Your task to perform on an android device: install app "VLC for Android" Image 0: 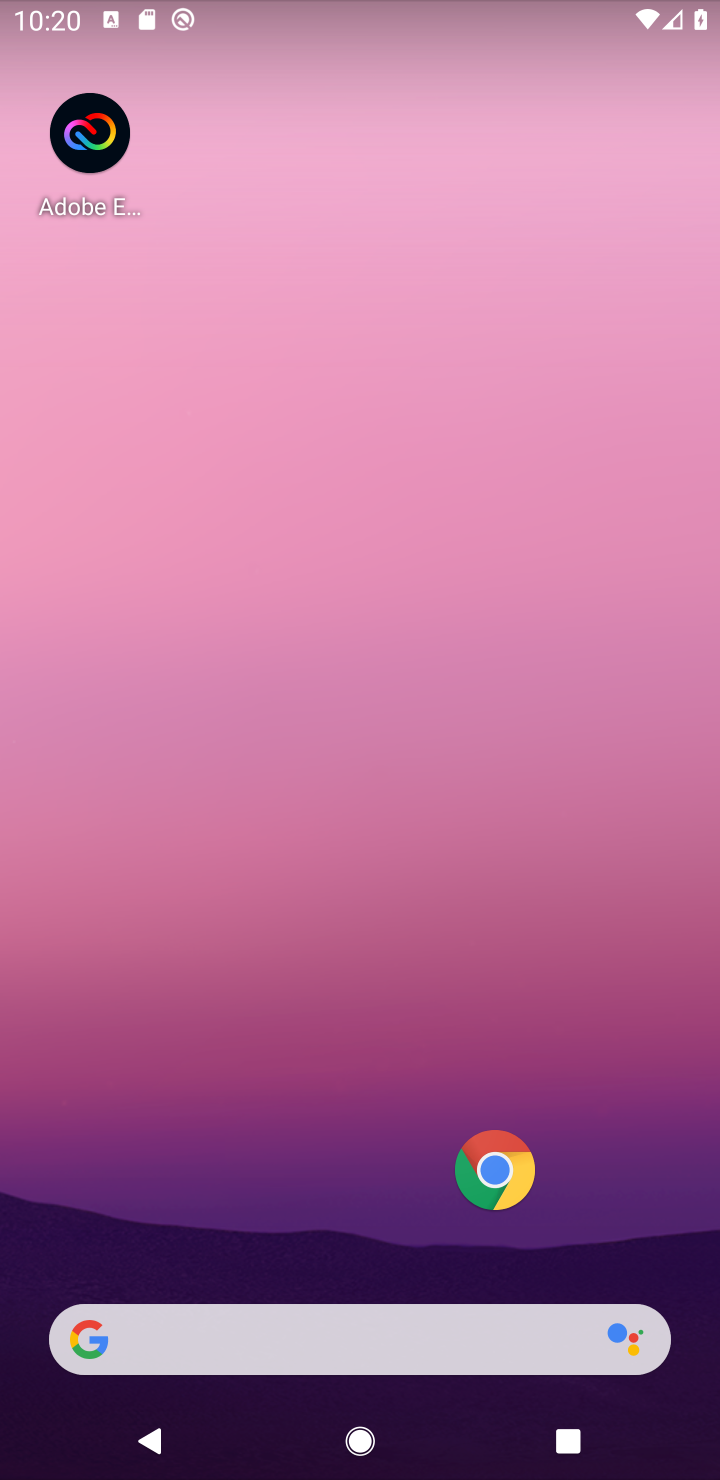
Step 0: drag from (186, 1227) to (426, 58)
Your task to perform on an android device: install app "VLC for Android" Image 1: 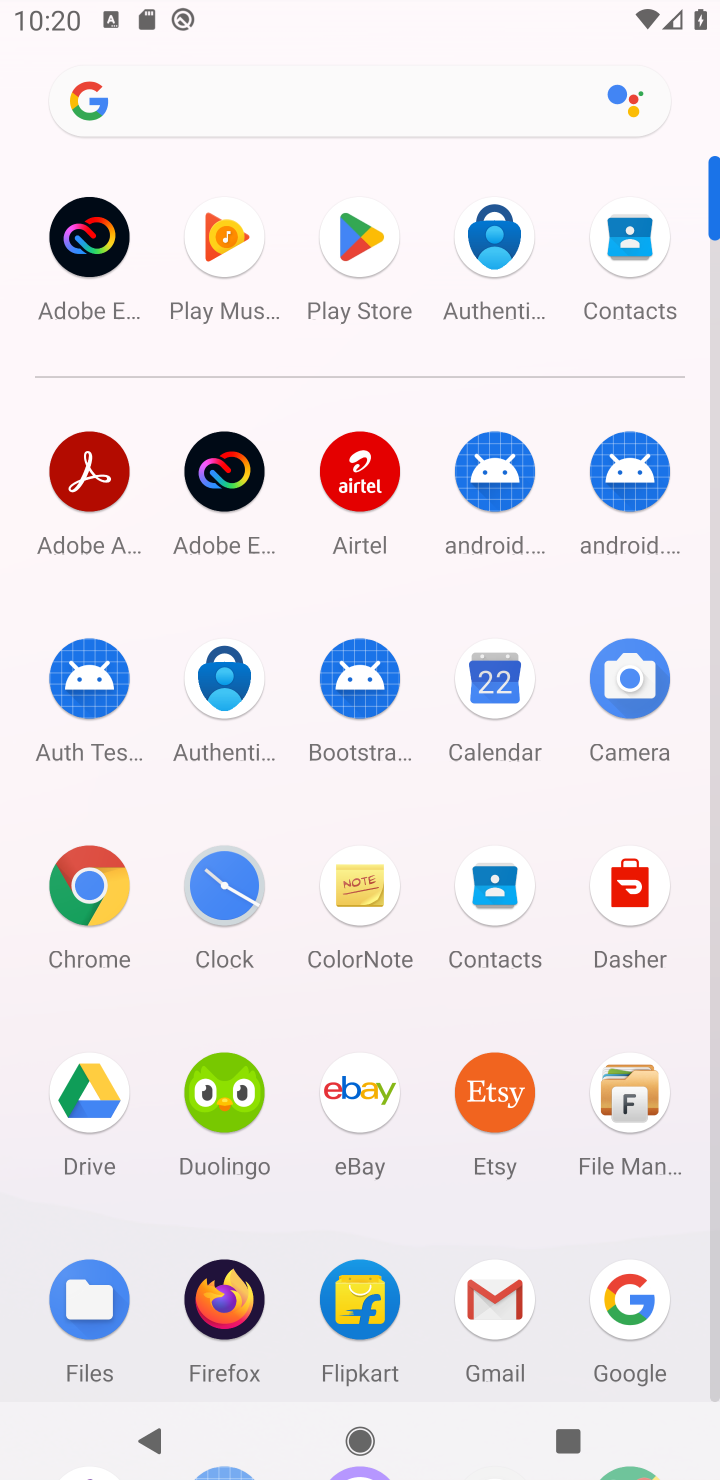
Step 1: click (356, 245)
Your task to perform on an android device: install app "VLC for Android" Image 2: 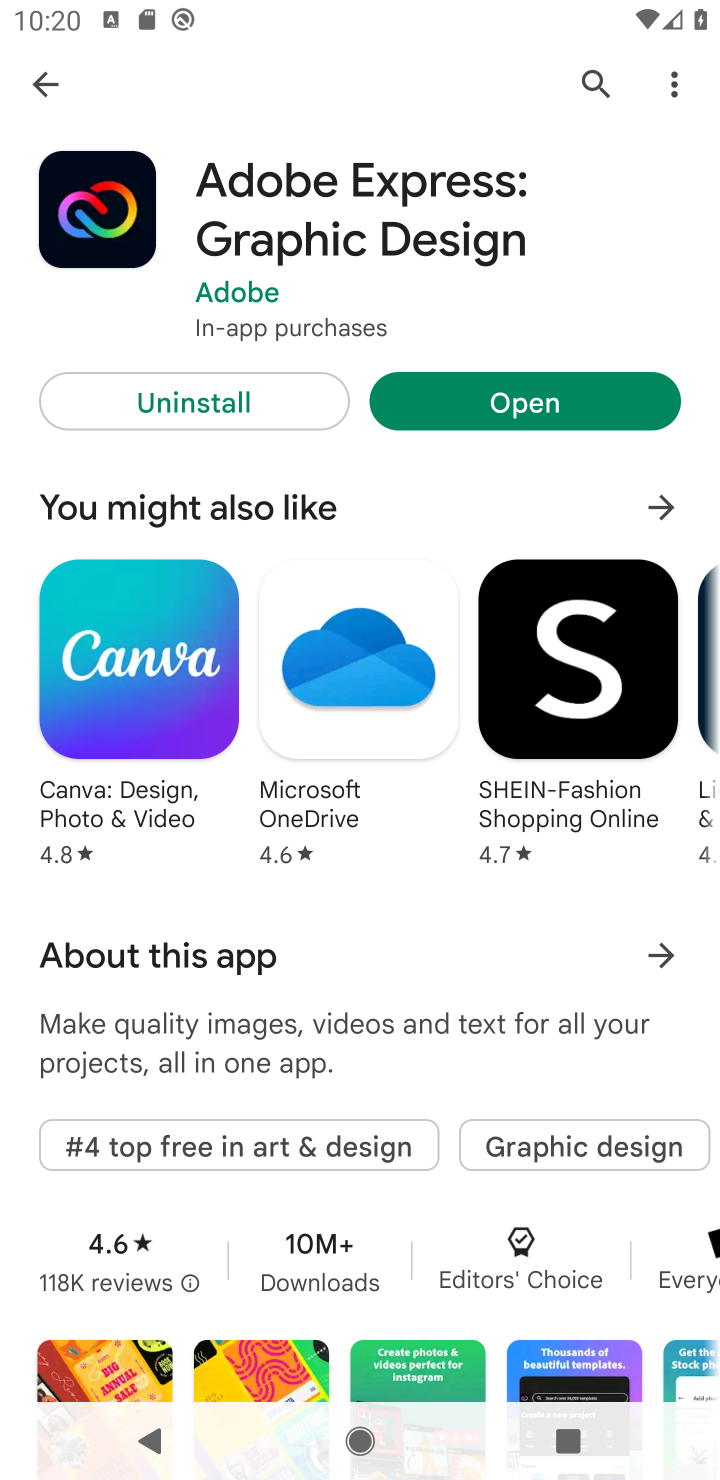
Step 2: click (584, 56)
Your task to perform on an android device: install app "VLC for Android" Image 3: 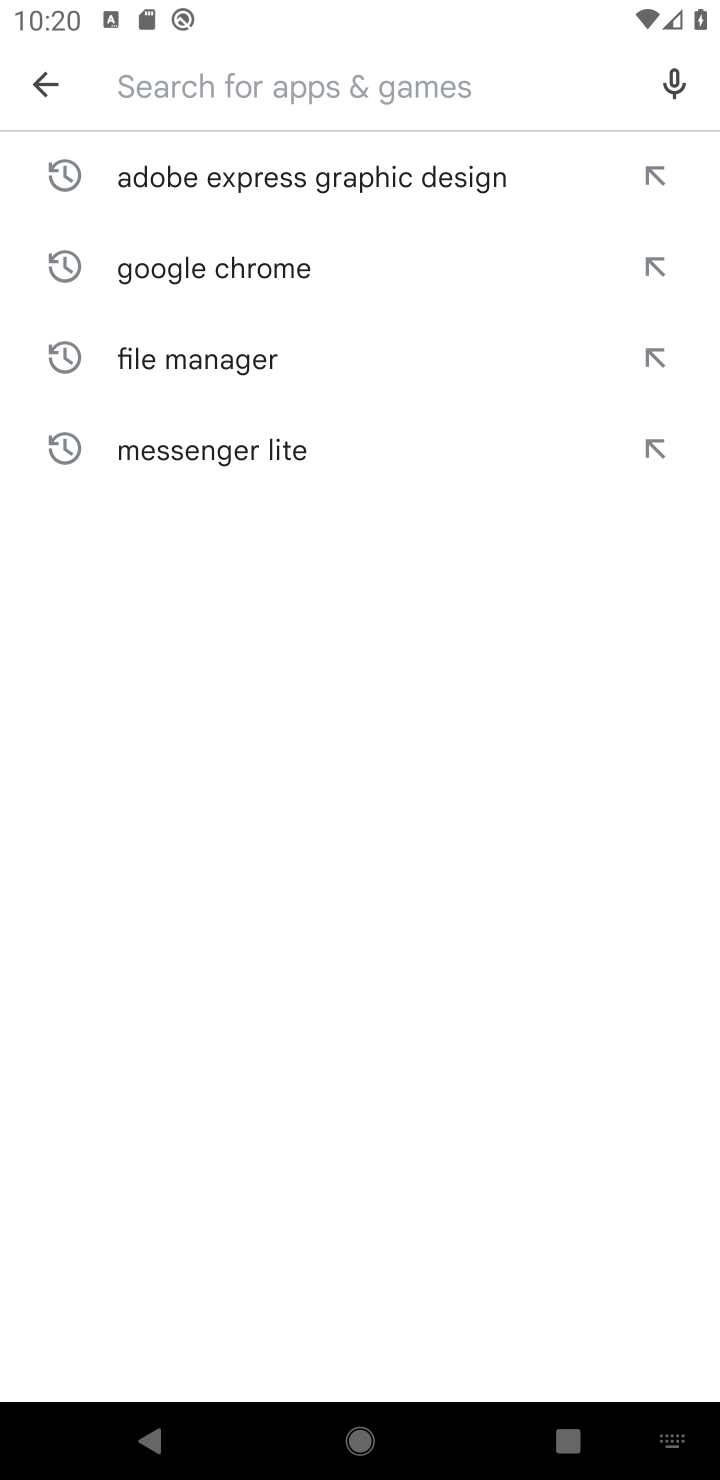
Step 3: click (194, 94)
Your task to perform on an android device: install app "VLC for Android" Image 4: 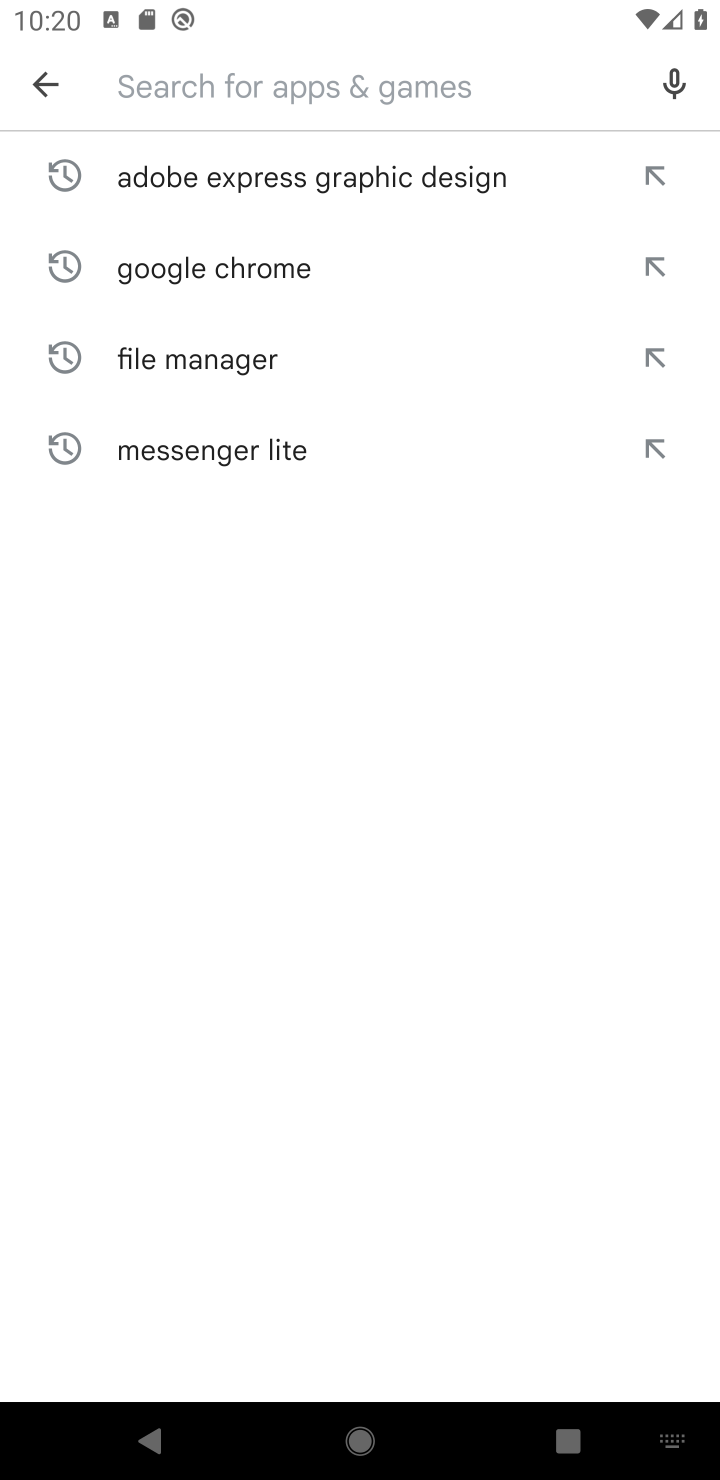
Step 4: type "VLC for Android"
Your task to perform on an android device: install app "VLC for Android" Image 5: 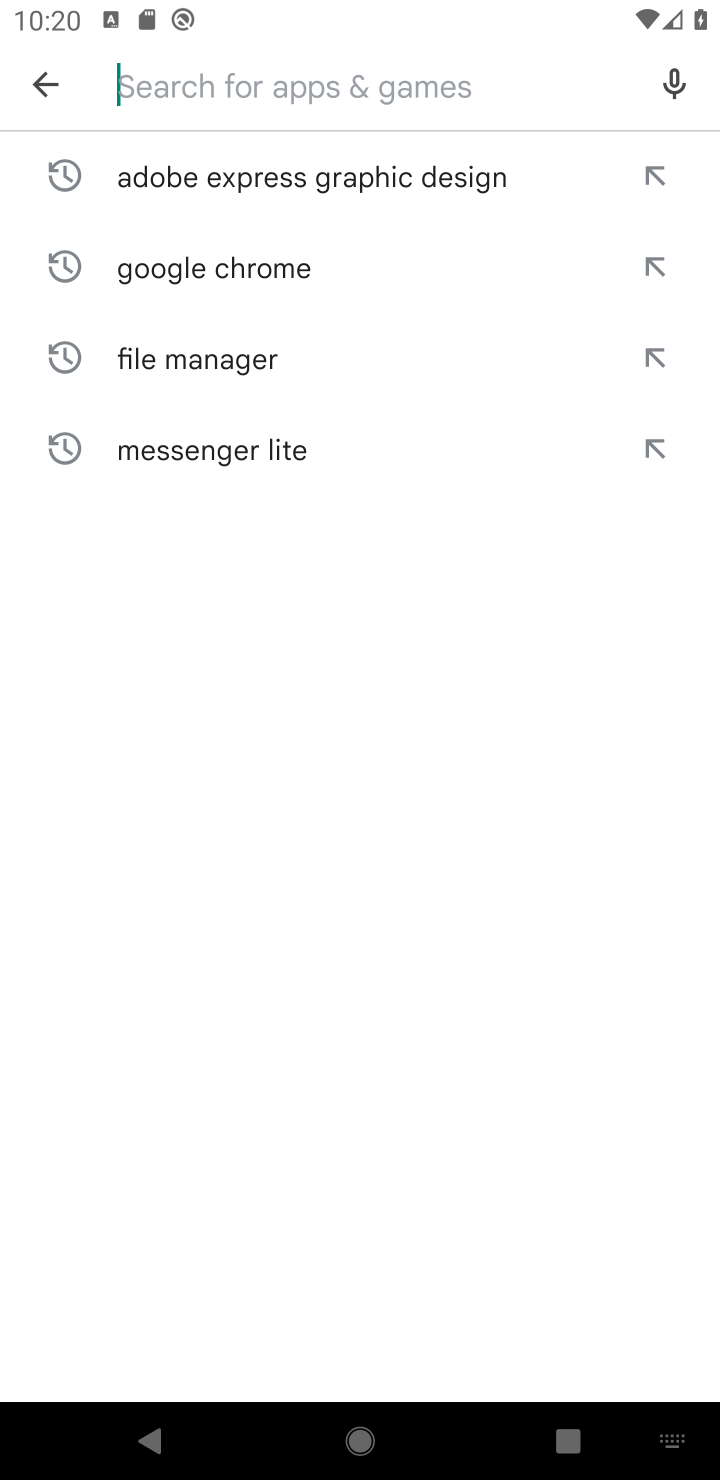
Step 5: click (510, 914)
Your task to perform on an android device: install app "VLC for Android" Image 6: 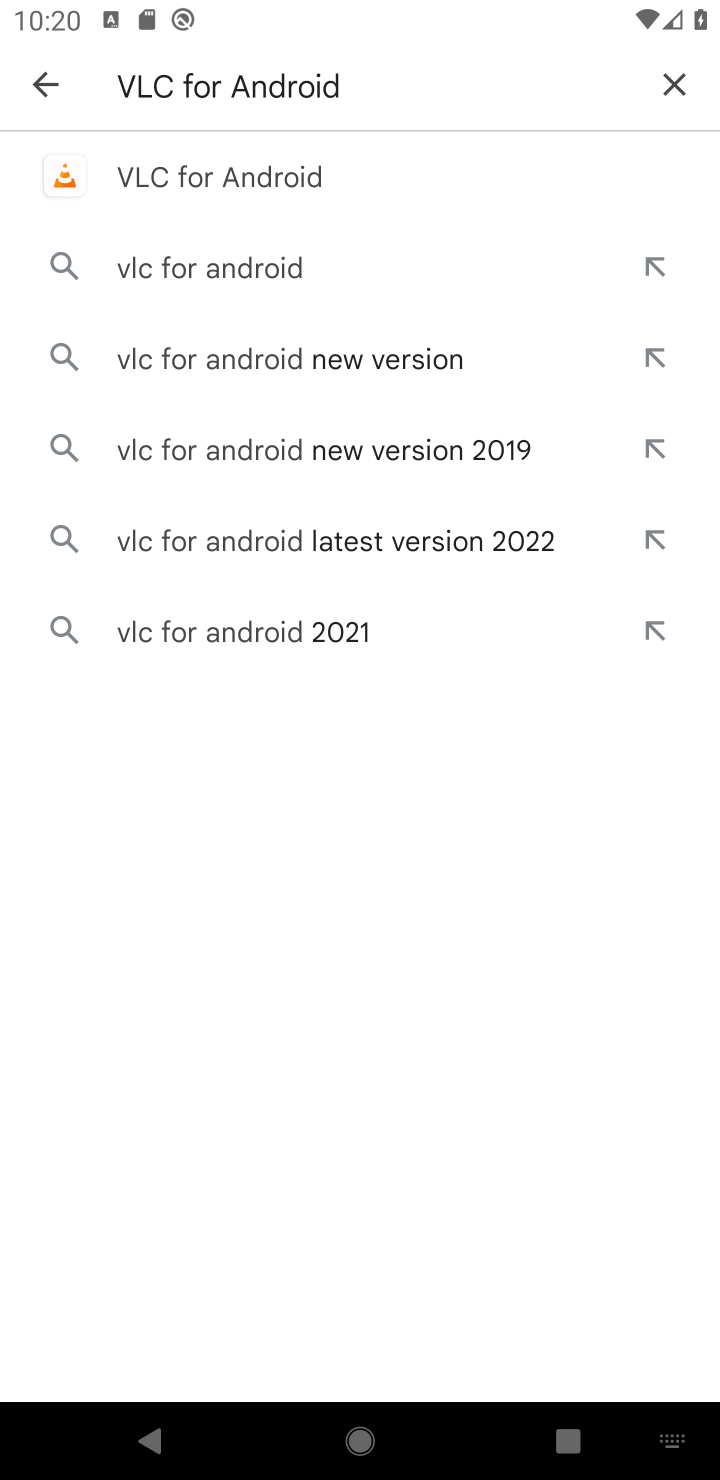
Step 6: click (248, 161)
Your task to perform on an android device: install app "VLC for Android" Image 7: 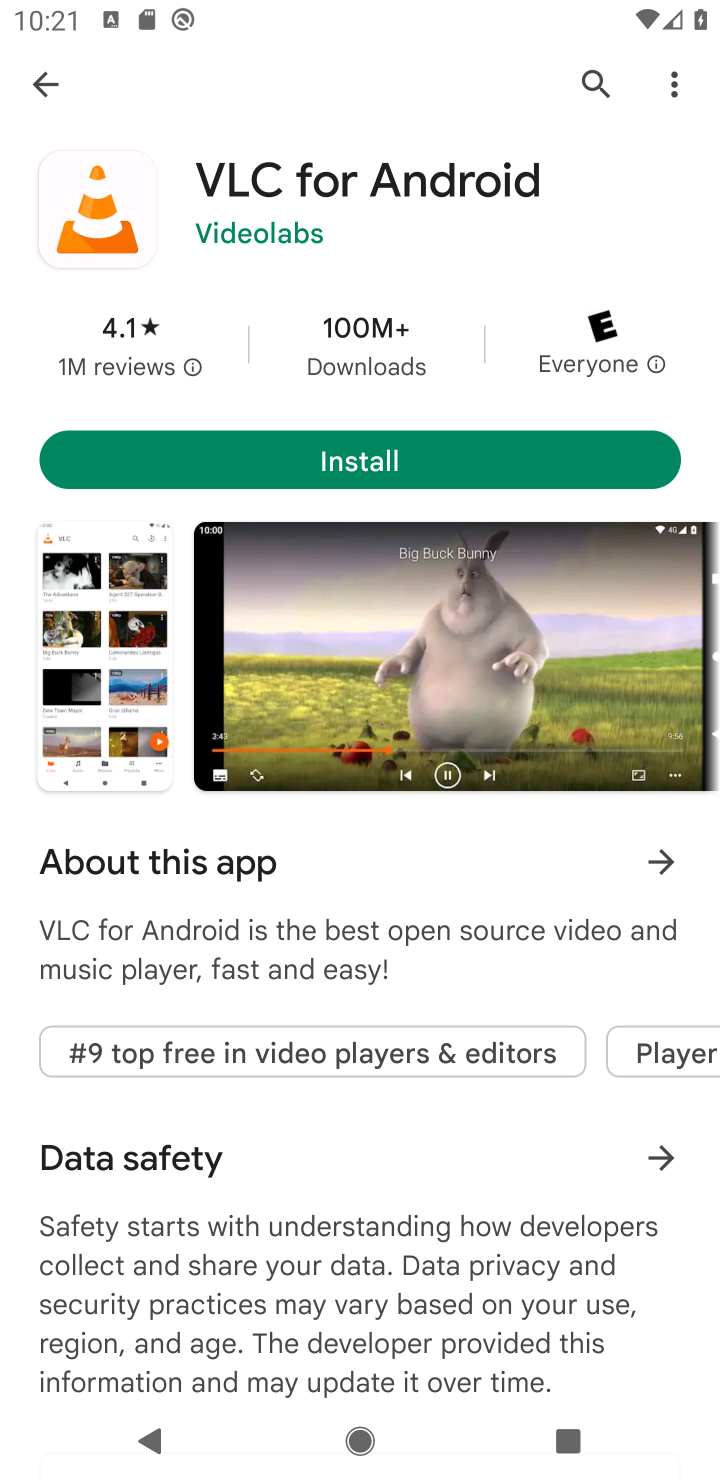
Step 7: click (349, 460)
Your task to perform on an android device: install app "VLC for Android" Image 8: 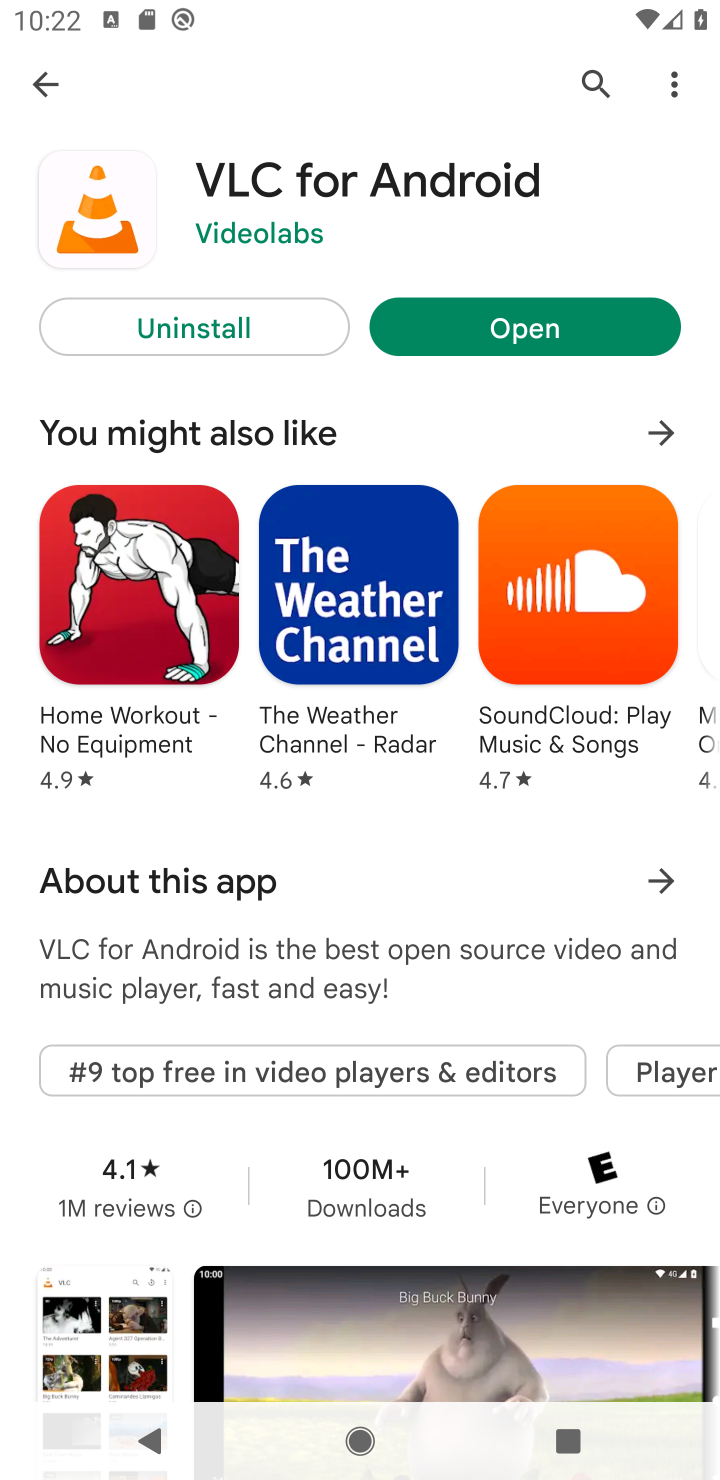
Step 8: task complete